Your task to perform on an android device: Open Google Maps Image 0: 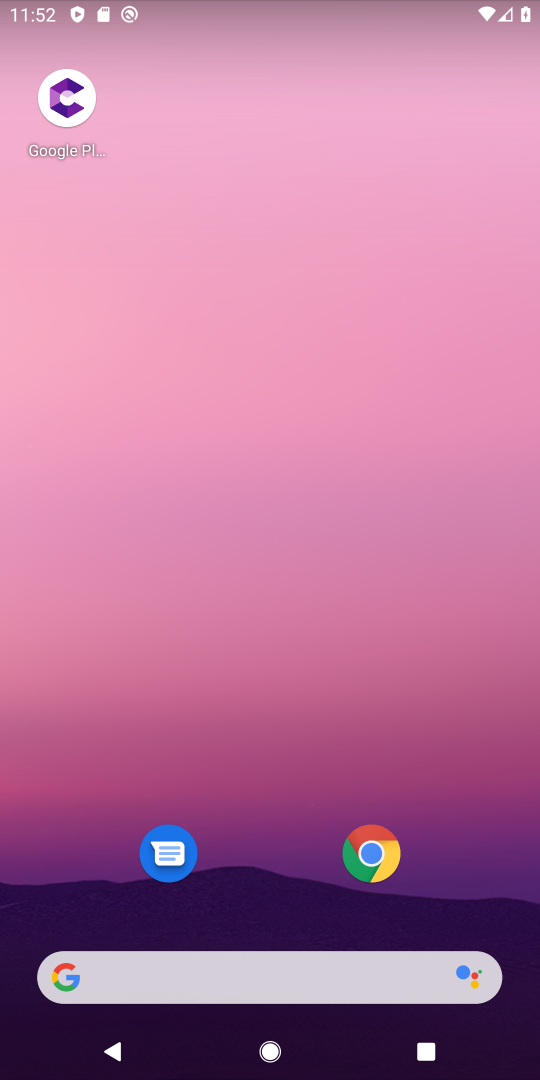
Step 0: drag from (323, 907) to (255, 256)
Your task to perform on an android device: Open Google Maps Image 1: 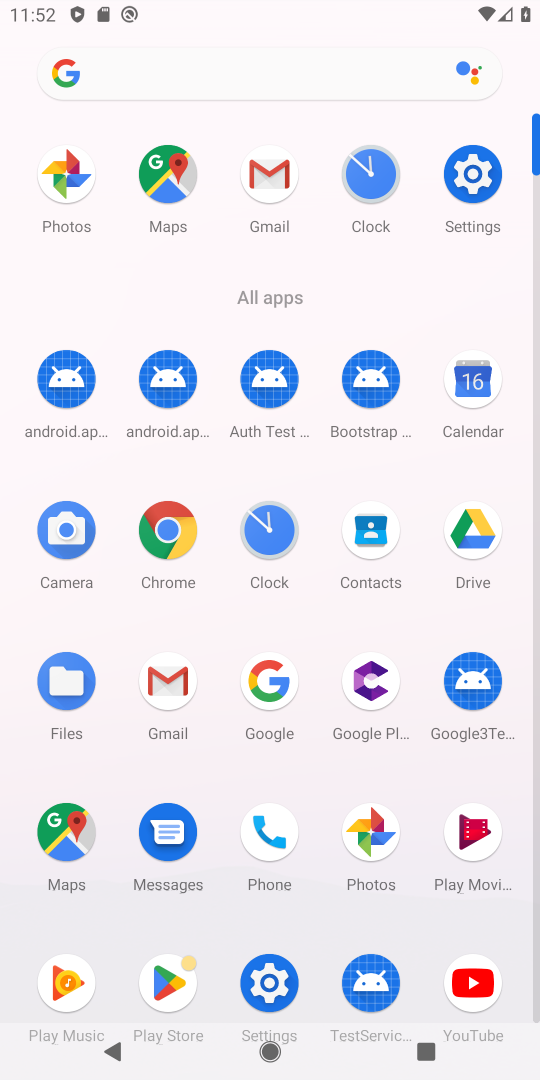
Step 1: click (57, 833)
Your task to perform on an android device: Open Google Maps Image 2: 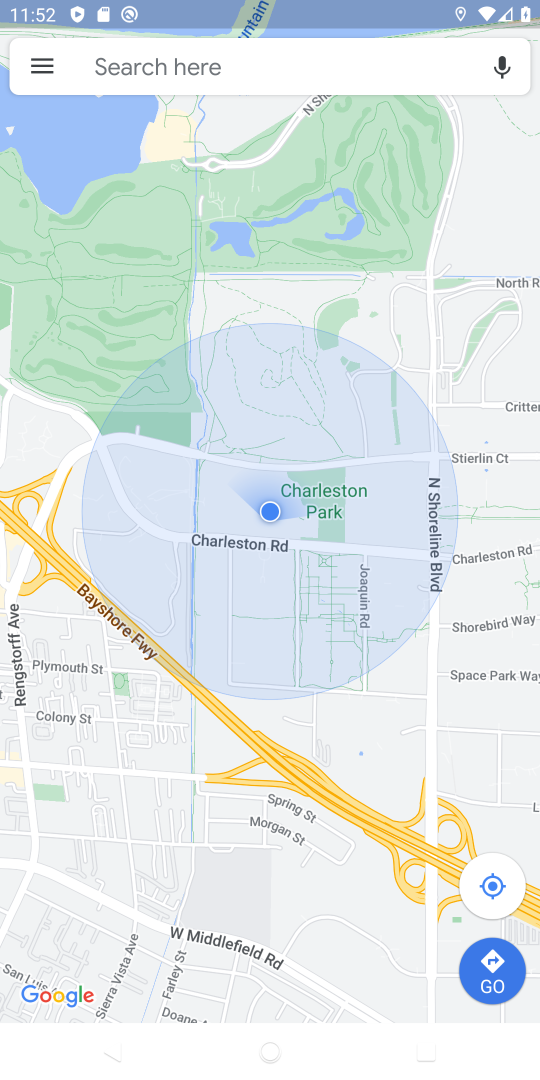
Step 2: task complete